Your task to perform on an android device: Go to calendar. Show me events next week Image 0: 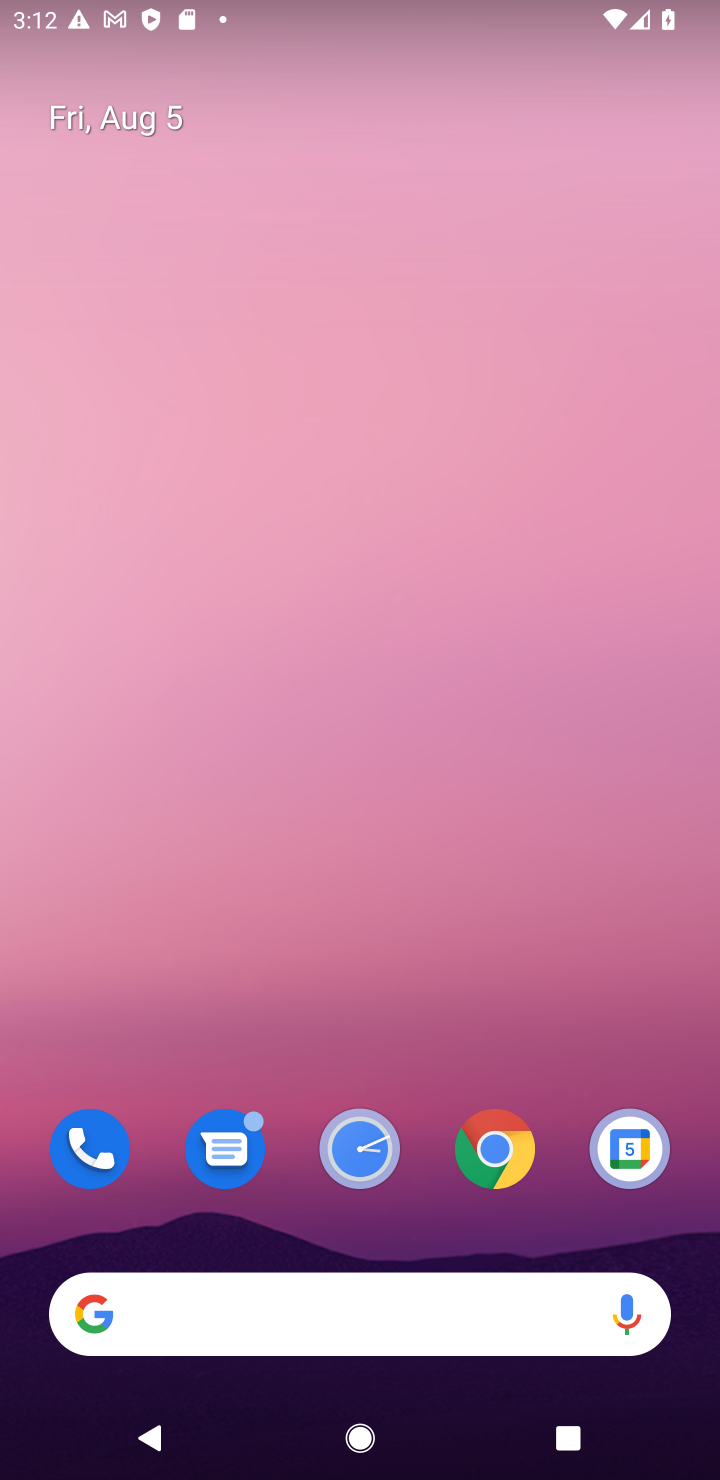
Step 0: click (630, 1156)
Your task to perform on an android device: Go to calendar. Show me events next week Image 1: 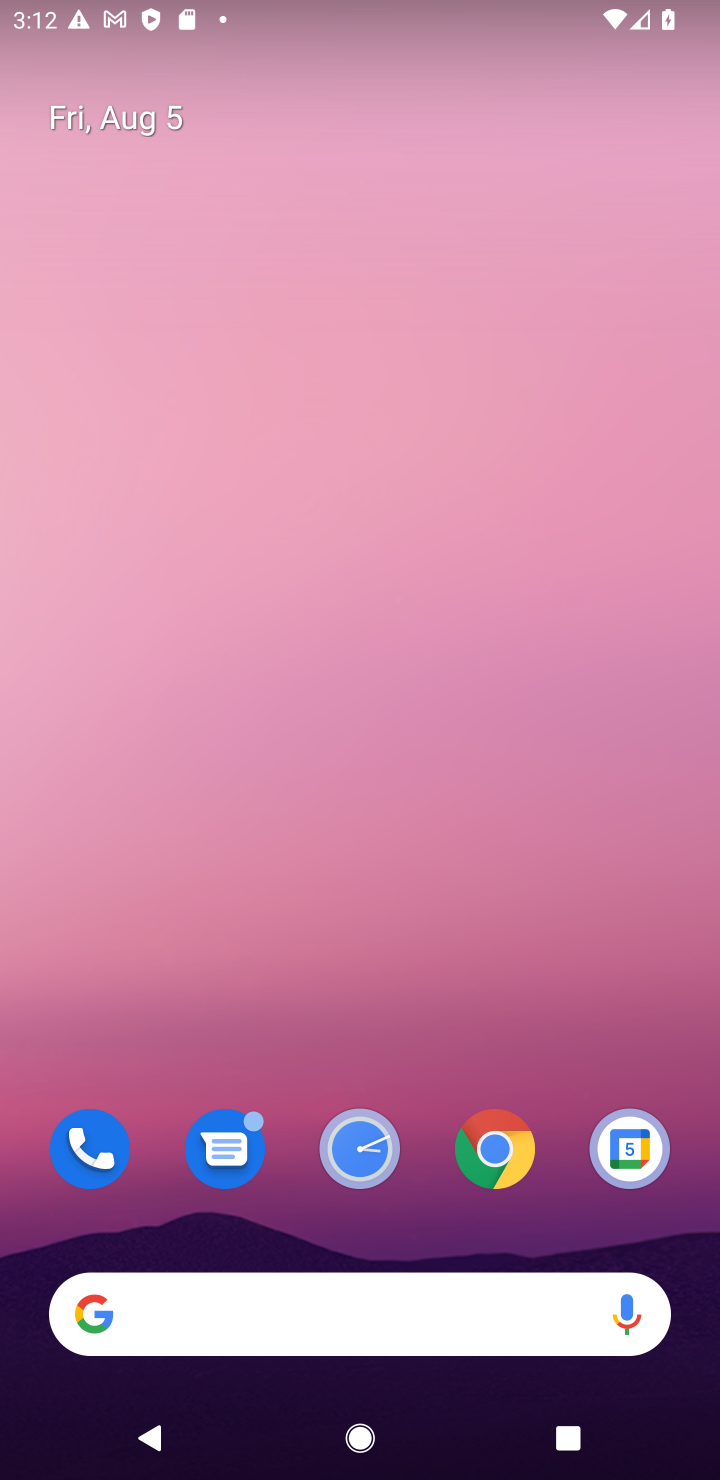
Step 1: click (627, 1134)
Your task to perform on an android device: Go to calendar. Show me events next week Image 2: 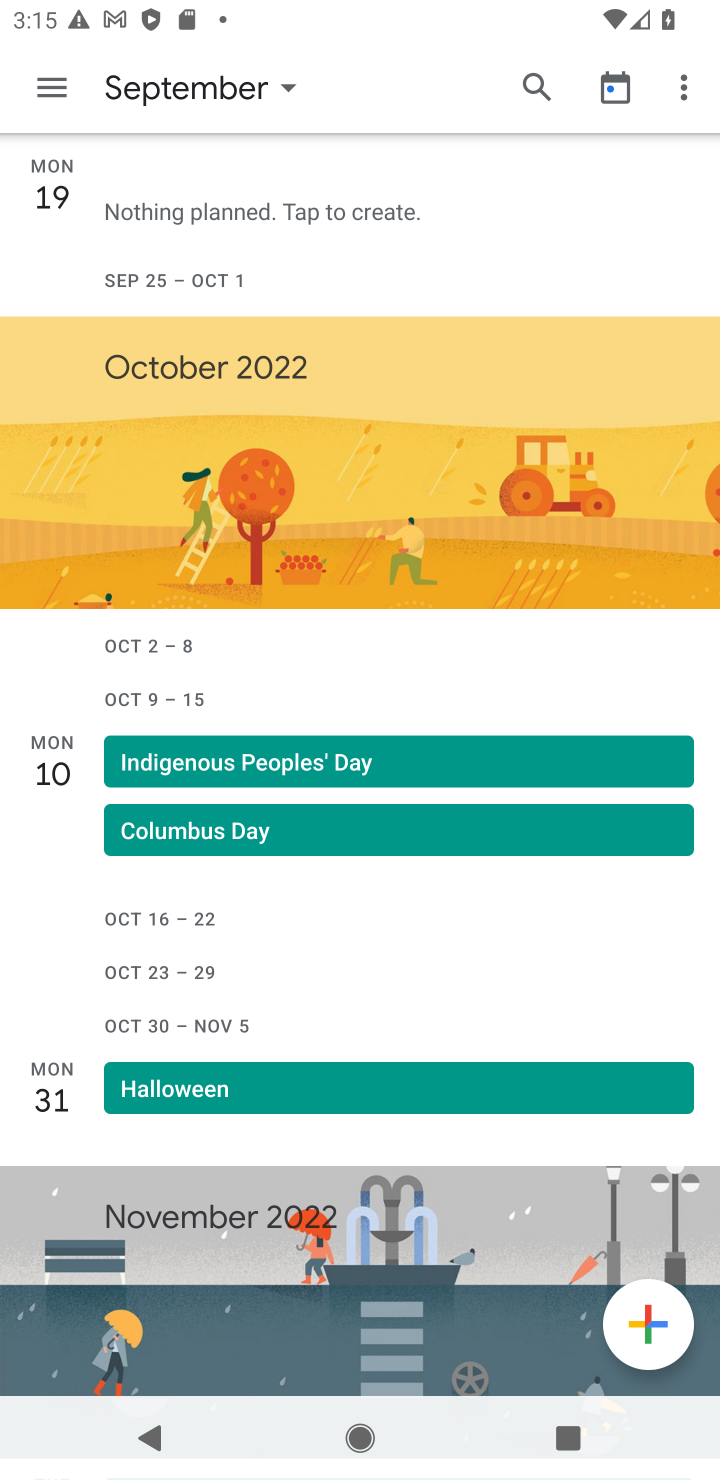
Step 2: click (234, 90)
Your task to perform on an android device: Go to calendar. Show me events next week Image 3: 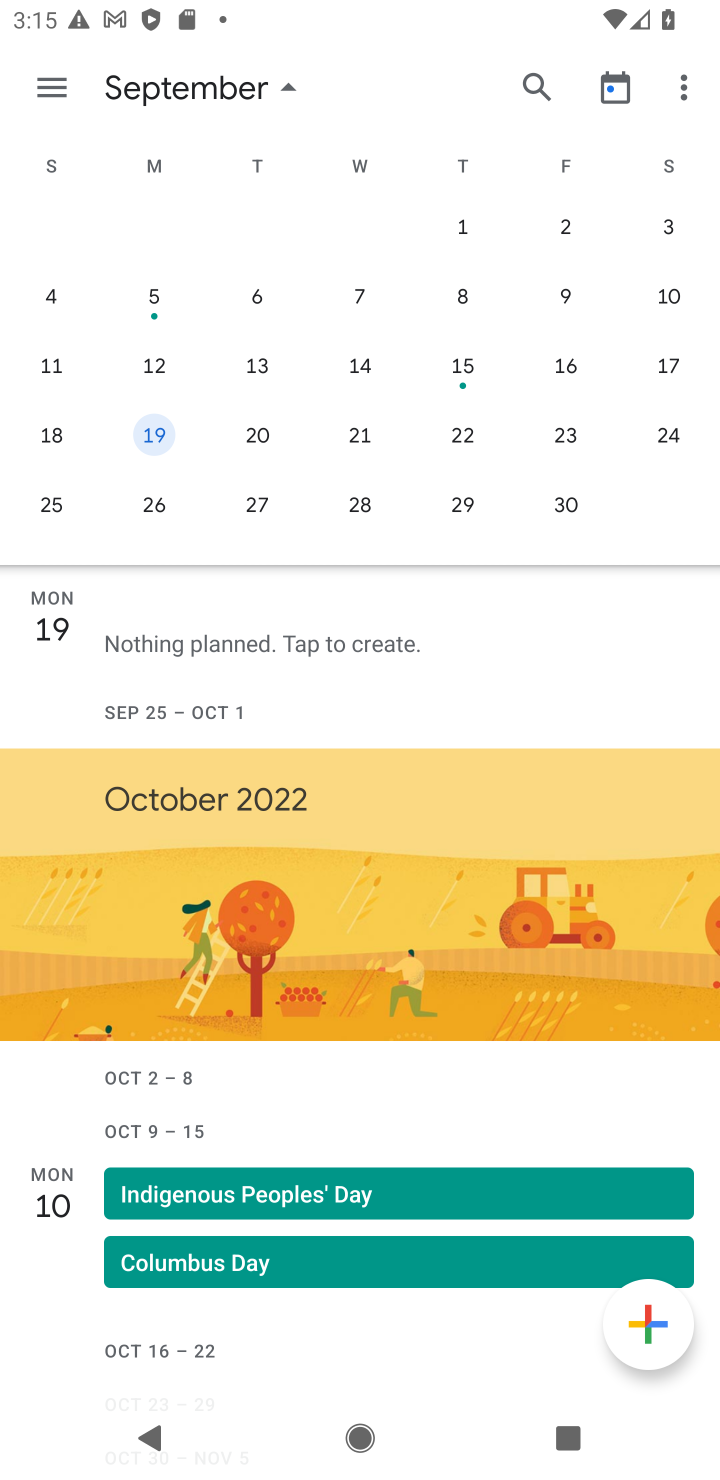
Step 3: drag from (132, 370) to (579, 376)
Your task to perform on an android device: Go to calendar. Show me events next week Image 4: 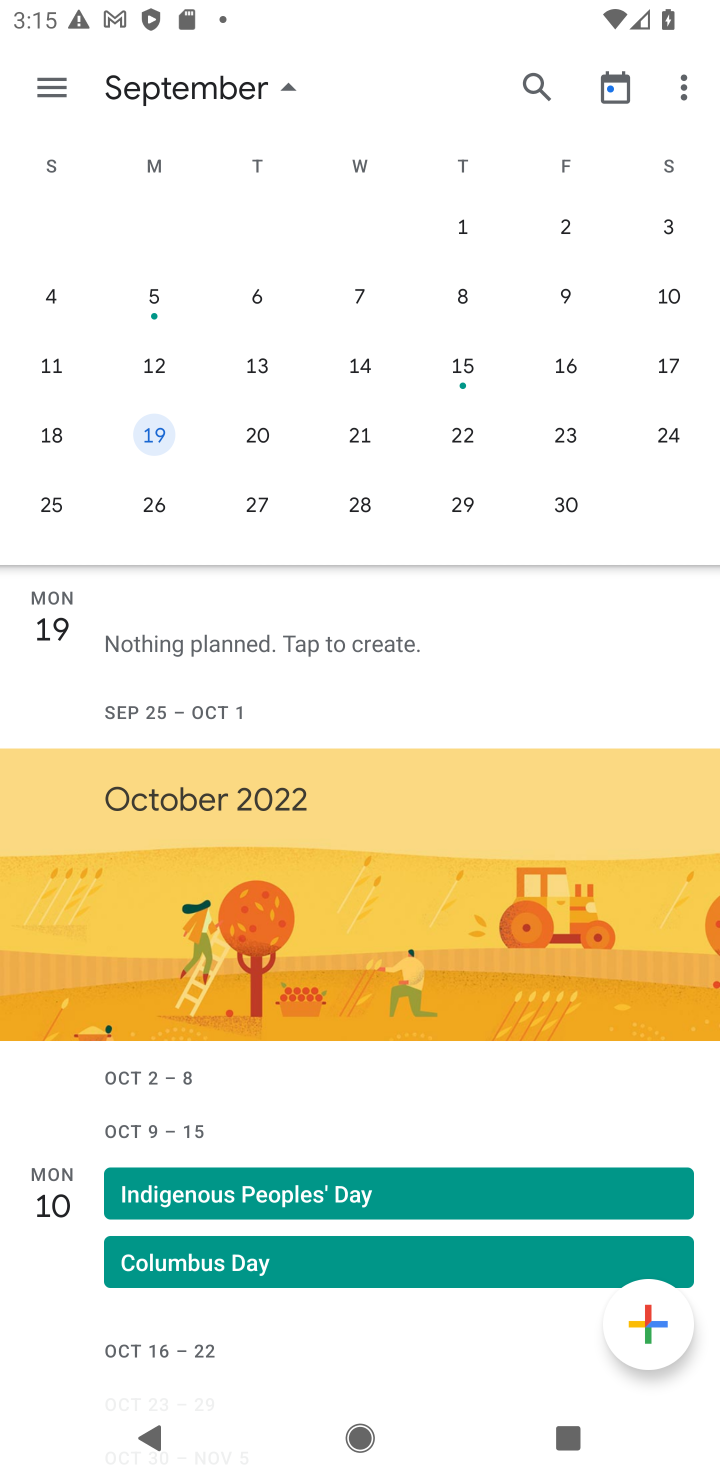
Step 4: drag from (43, 365) to (687, 361)
Your task to perform on an android device: Go to calendar. Show me events next week Image 5: 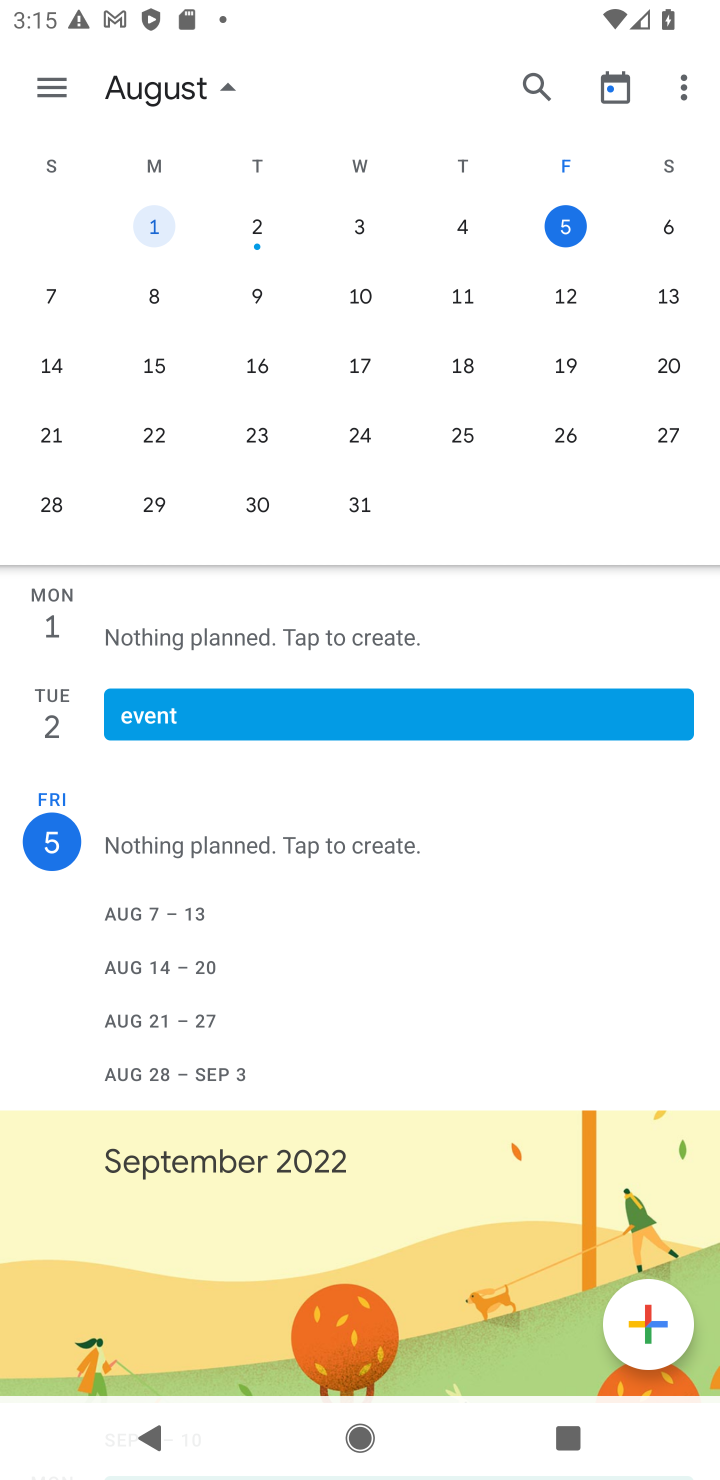
Step 5: click (151, 307)
Your task to perform on an android device: Go to calendar. Show me events next week Image 6: 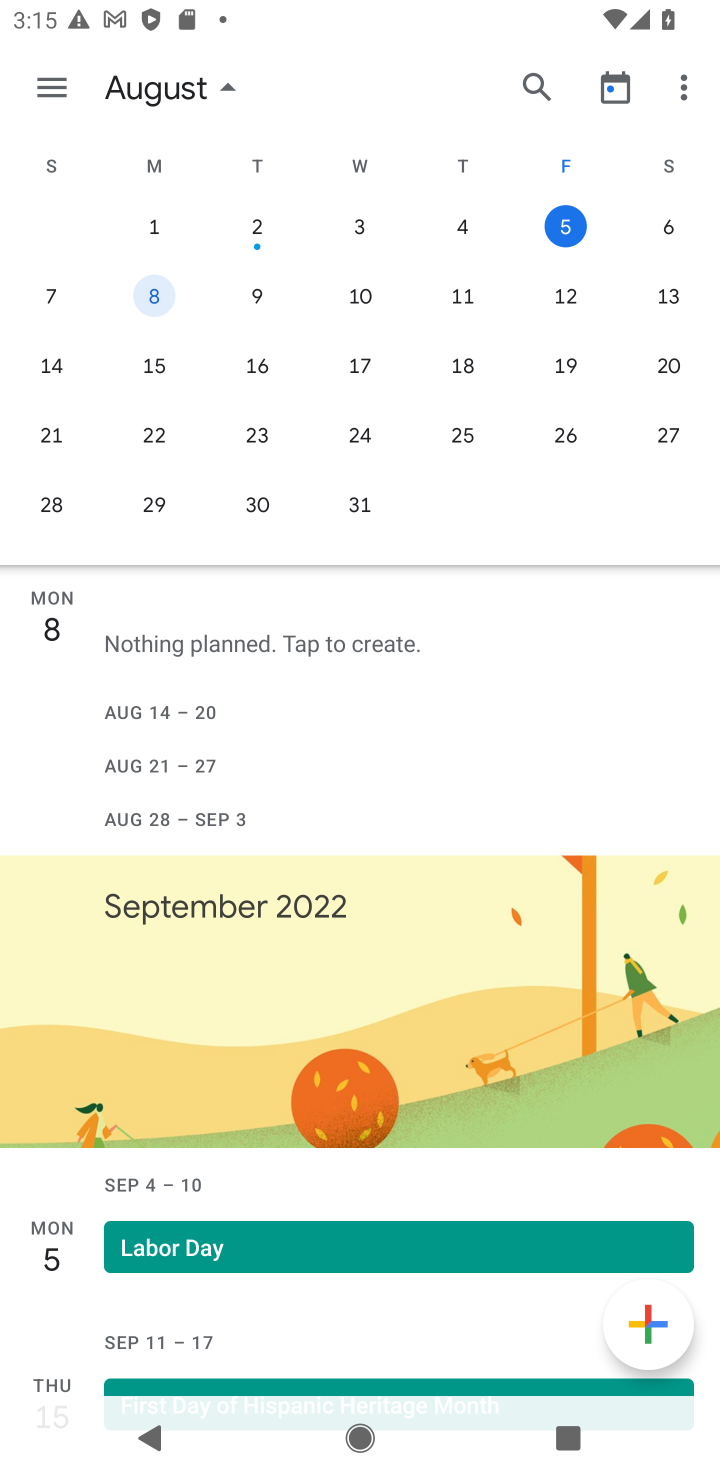
Step 6: task complete